Your task to perform on an android device: turn pop-ups off in chrome Image 0: 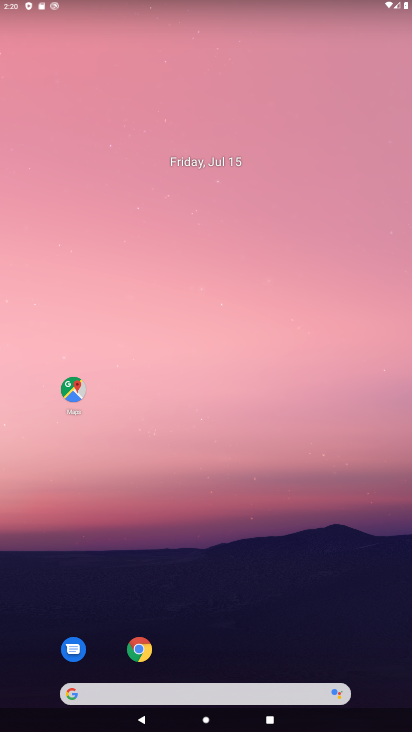
Step 0: click (135, 663)
Your task to perform on an android device: turn pop-ups off in chrome Image 1: 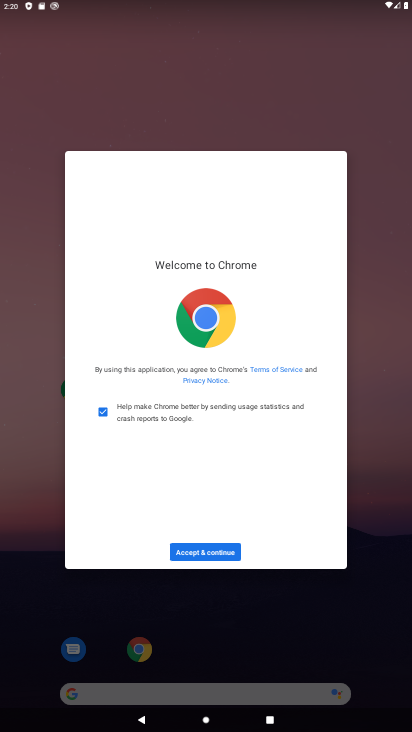
Step 1: click (194, 558)
Your task to perform on an android device: turn pop-ups off in chrome Image 2: 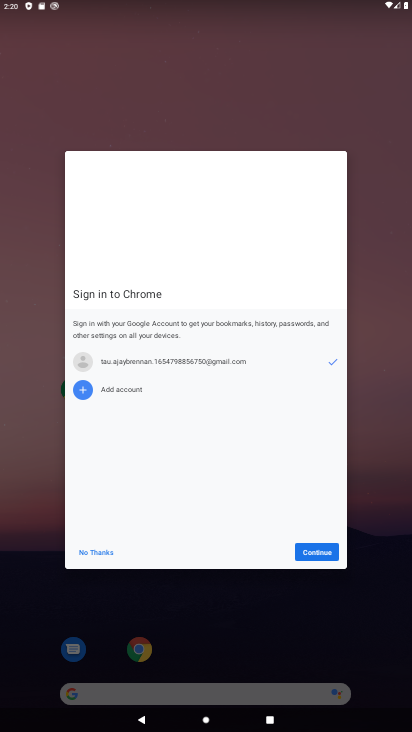
Step 2: click (311, 552)
Your task to perform on an android device: turn pop-ups off in chrome Image 3: 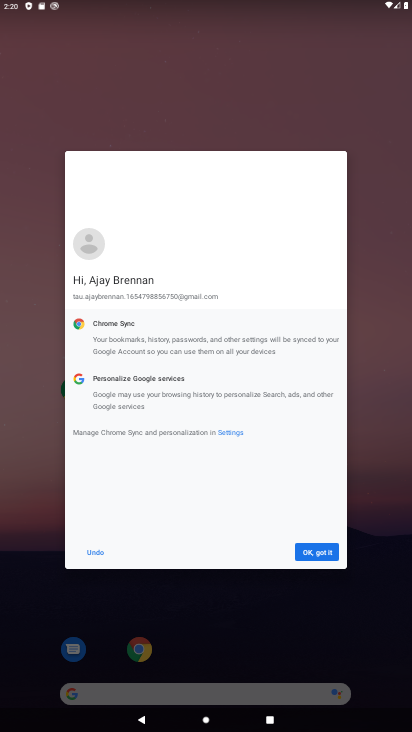
Step 3: click (311, 552)
Your task to perform on an android device: turn pop-ups off in chrome Image 4: 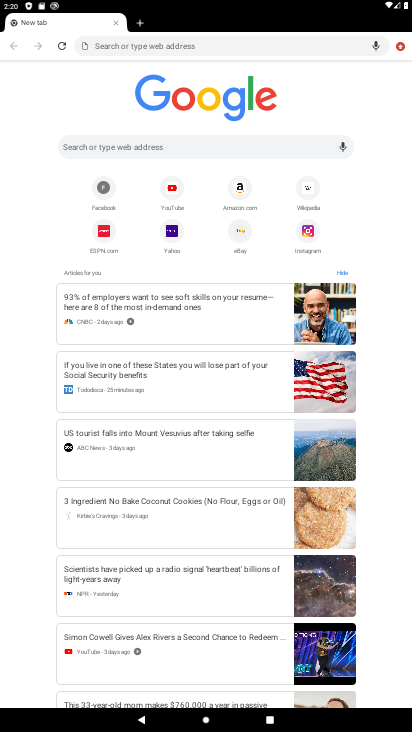
Step 4: click (397, 43)
Your task to perform on an android device: turn pop-ups off in chrome Image 5: 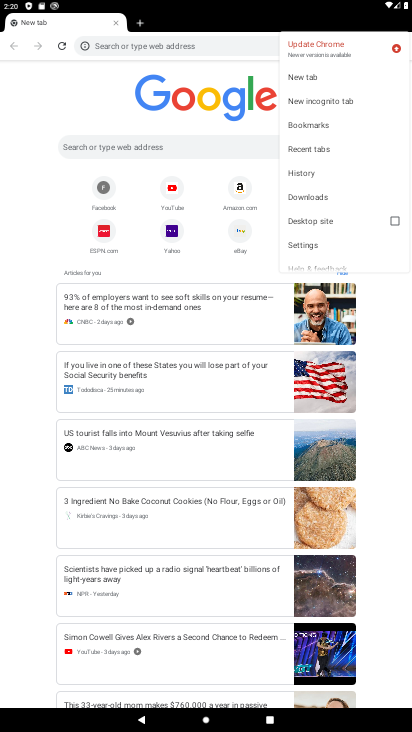
Step 5: click (304, 244)
Your task to perform on an android device: turn pop-ups off in chrome Image 6: 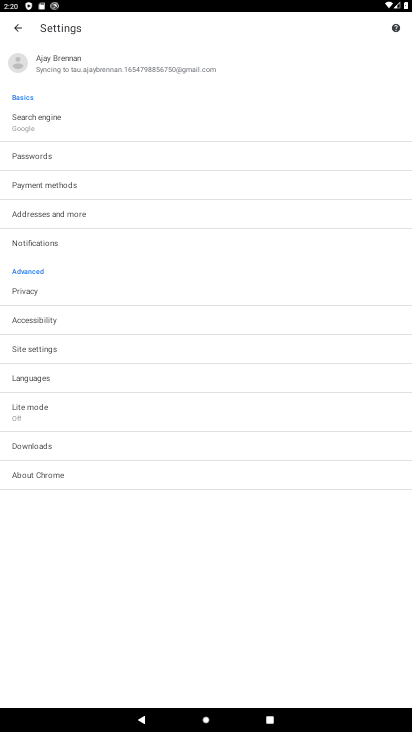
Step 6: click (49, 348)
Your task to perform on an android device: turn pop-ups off in chrome Image 7: 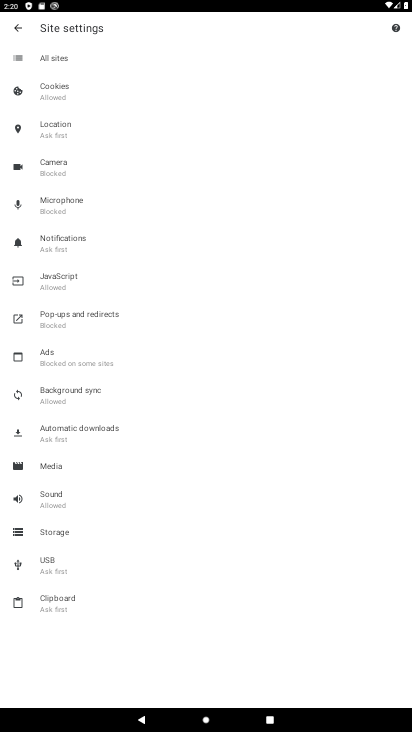
Step 7: click (64, 328)
Your task to perform on an android device: turn pop-ups off in chrome Image 8: 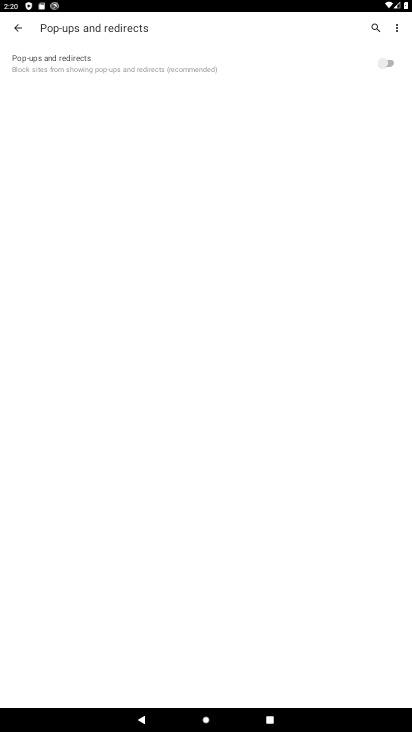
Step 8: task complete